Your task to perform on an android device: turn on wifi Image 0: 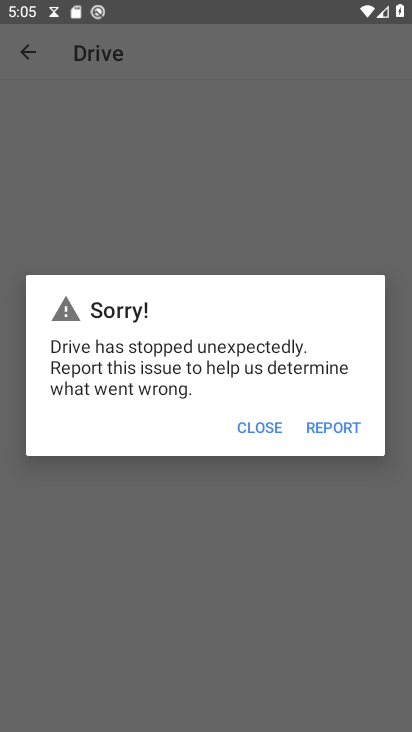
Step 0: press home button
Your task to perform on an android device: turn on wifi Image 1: 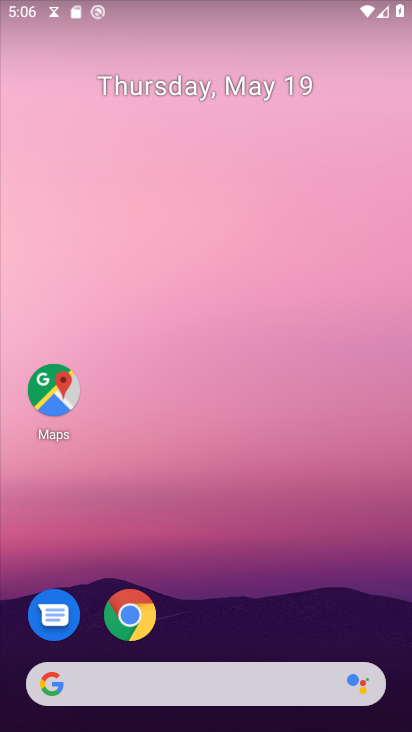
Step 1: drag from (215, 603) to (281, 0)
Your task to perform on an android device: turn on wifi Image 2: 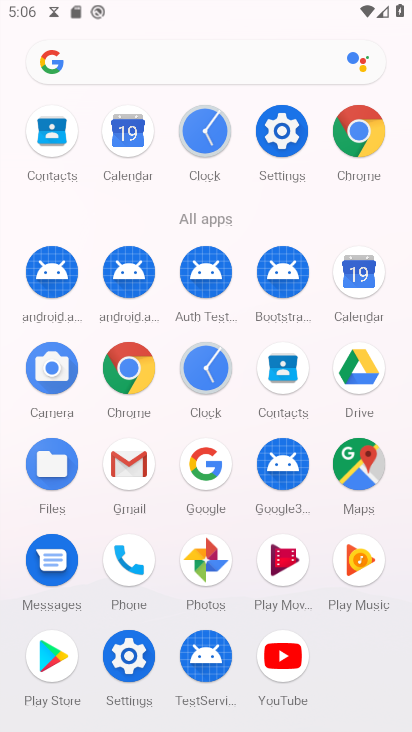
Step 2: click (269, 133)
Your task to perform on an android device: turn on wifi Image 3: 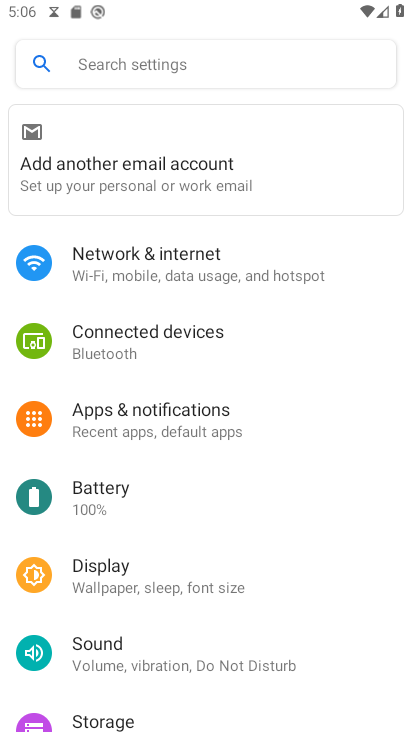
Step 3: click (192, 278)
Your task to perform on an android device: turn on wifi Image 4: 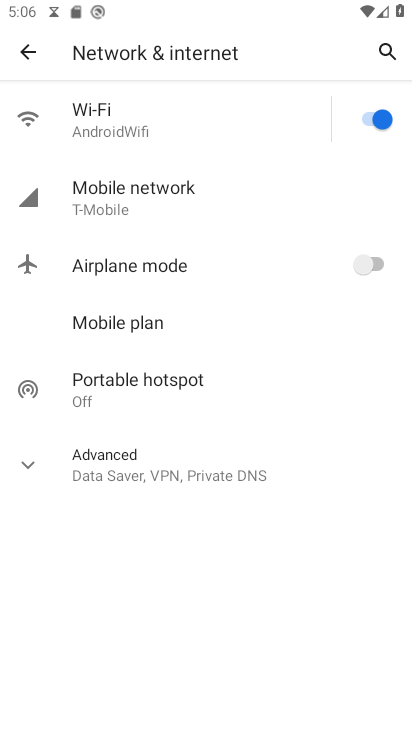
Step 4: task complete